Your task to perform on an android device: Install the Twitter app Image 0: 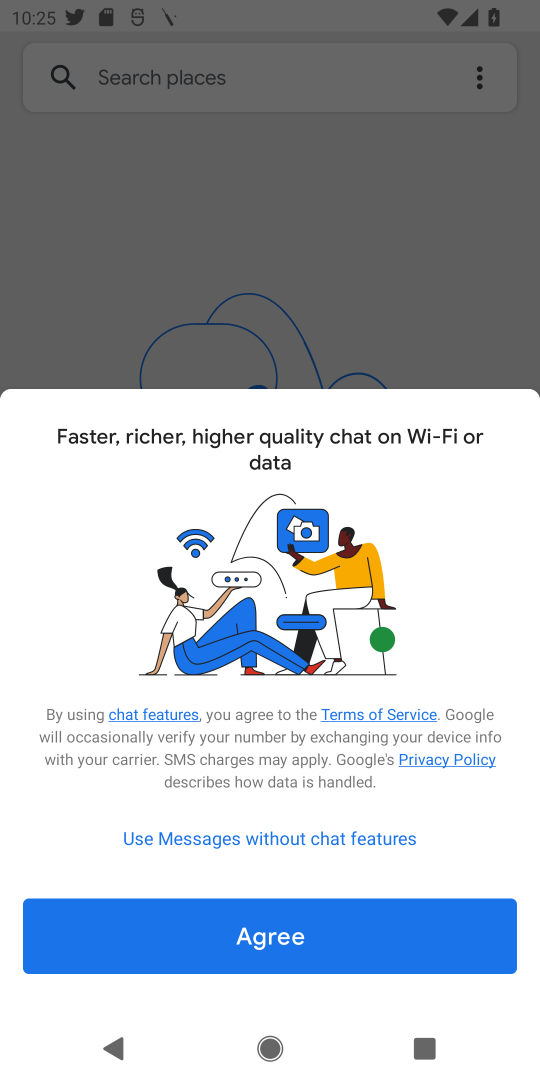
Step 0: press home button
Your task to perform on an android device: Install the Twitter app Image 1: 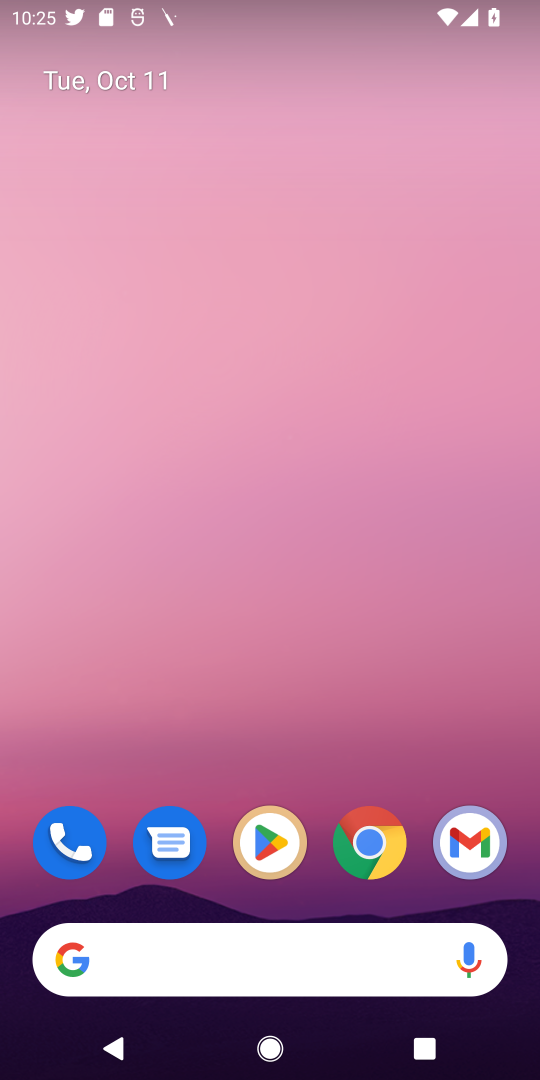
Step 1: drag from (245, 676) to (365, 286)
Your task to perform on an android device: Install the Twitter app Image 2: 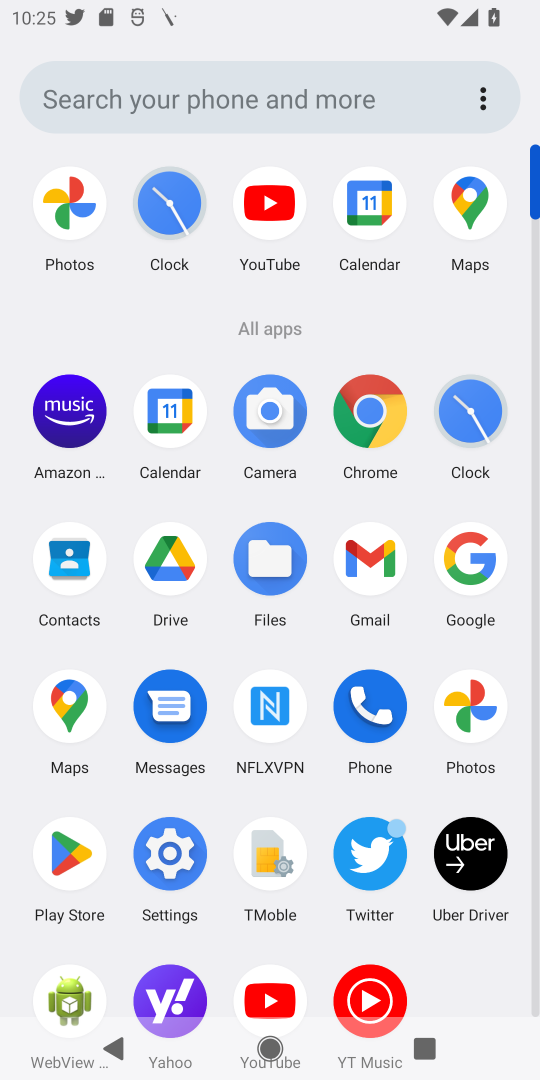
Step 2: click (370, 849)
Your task to perform on an android device: Install the Twitter app Image 3: 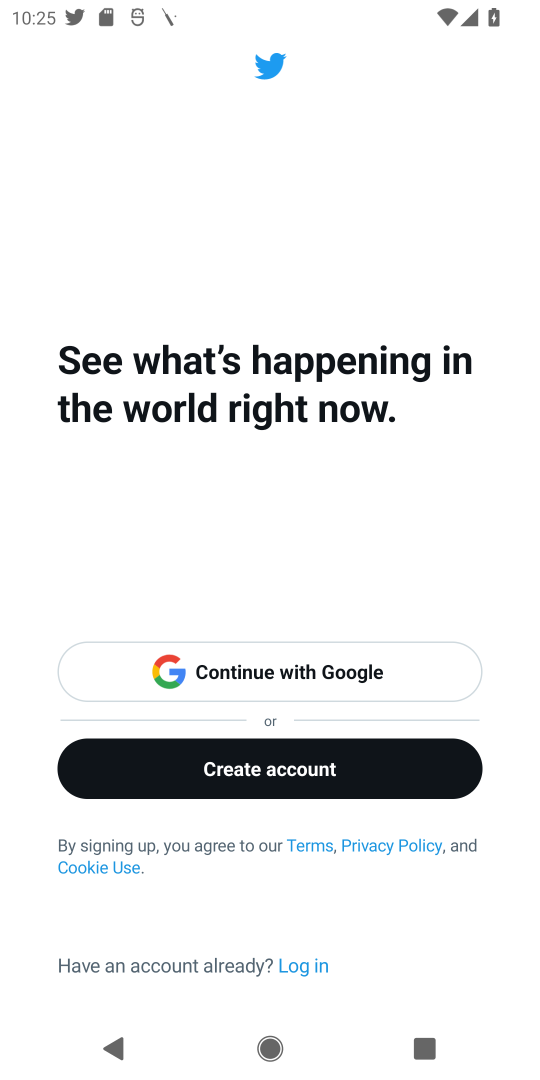
Step 3: click (350, 667)
Your task to perform on an android device: Install the Twitter app Image 4: 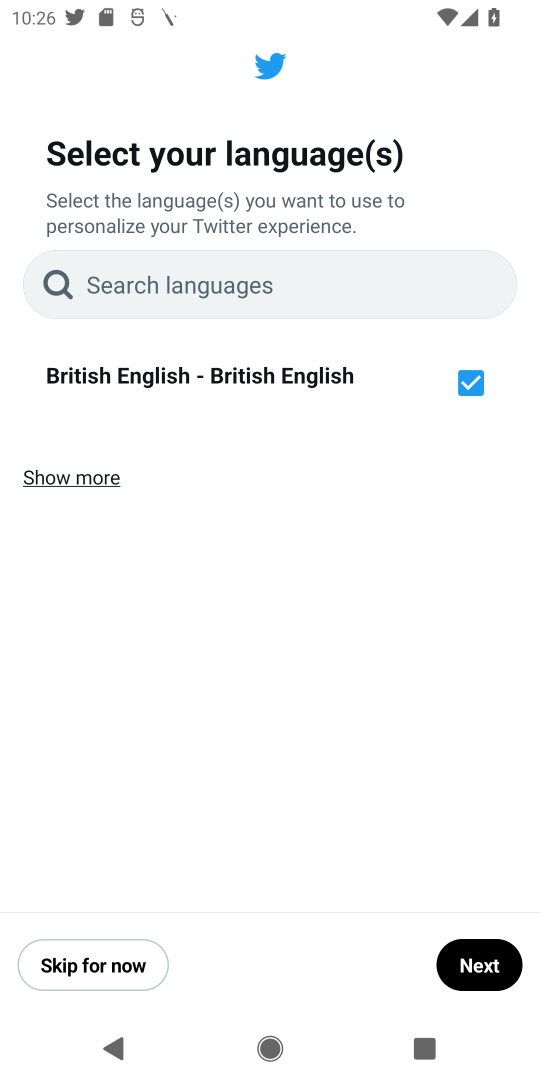
Step 4: drag from (249, 811) to (245, 612)
Your task to perform on an android device: Install the Twitter app Image 5: 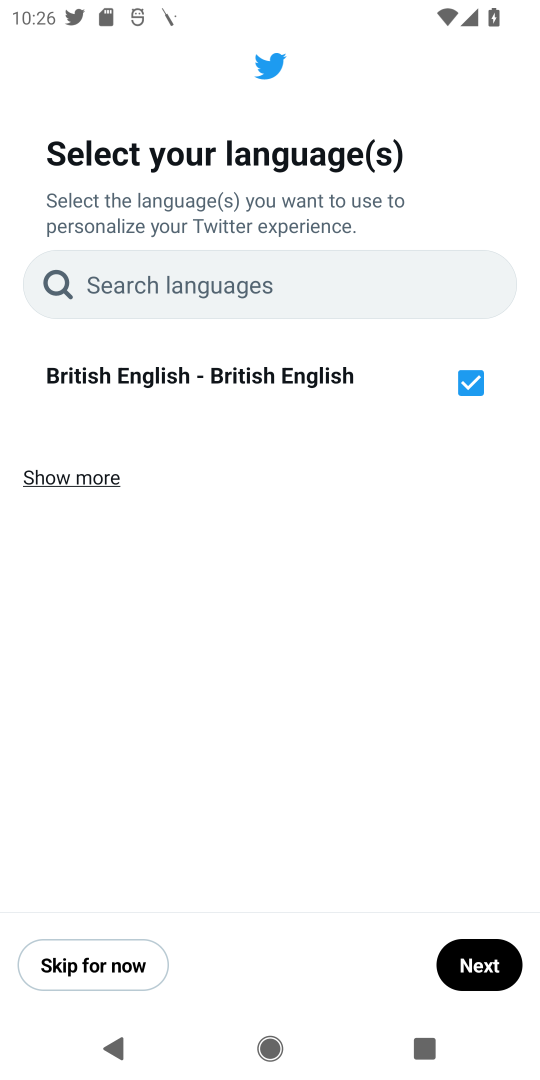
Step 5: click (463, 958)
Your task to perform on an android device: Install the Twitter app Image 6: 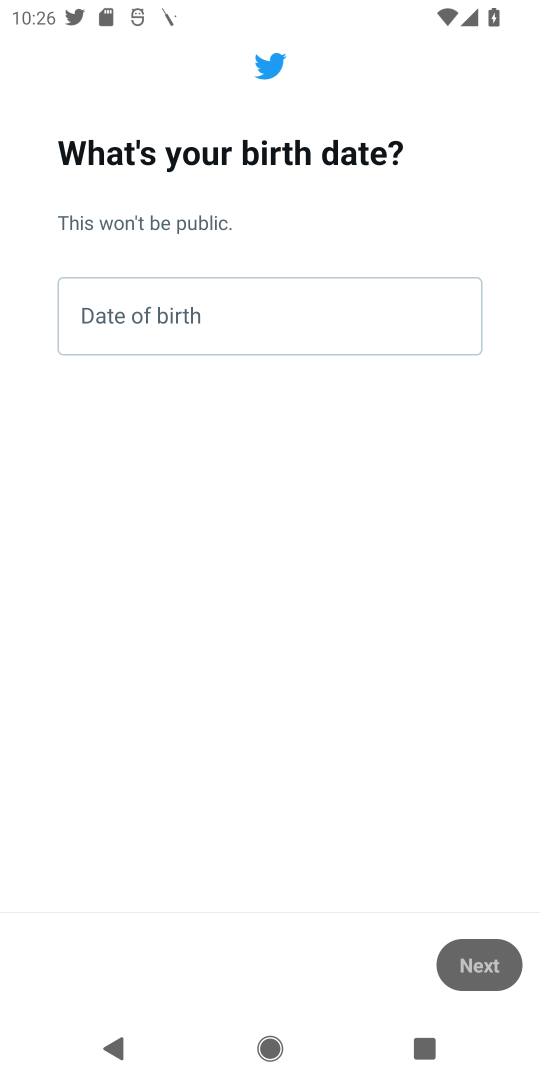
Step 6: click (482, 978)
Your task to perform on an android device: Install the Twitter app Image 7: 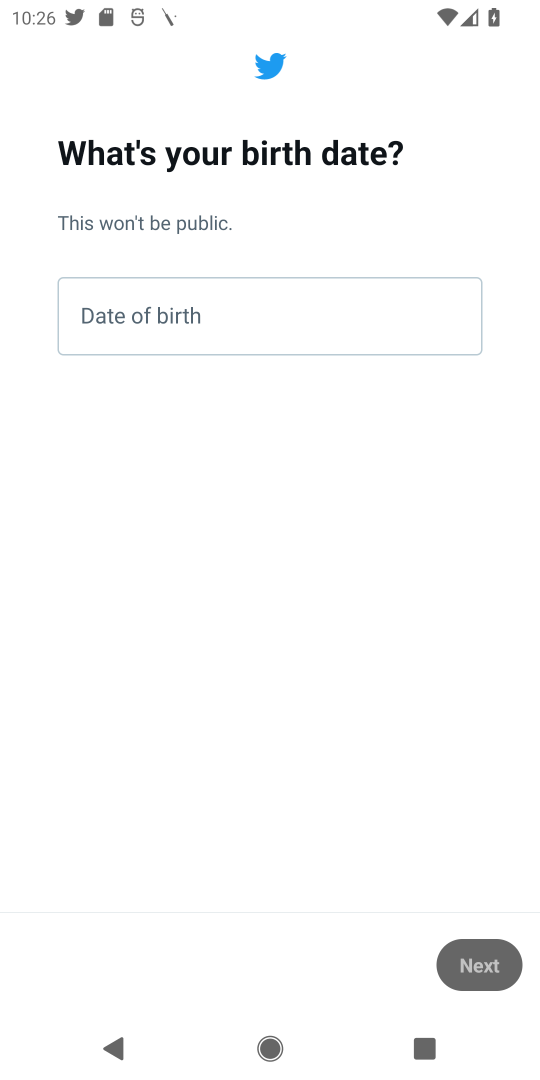
Step 7: press home button
Your task to perform on an android device: Install the Twitter app Image 8: 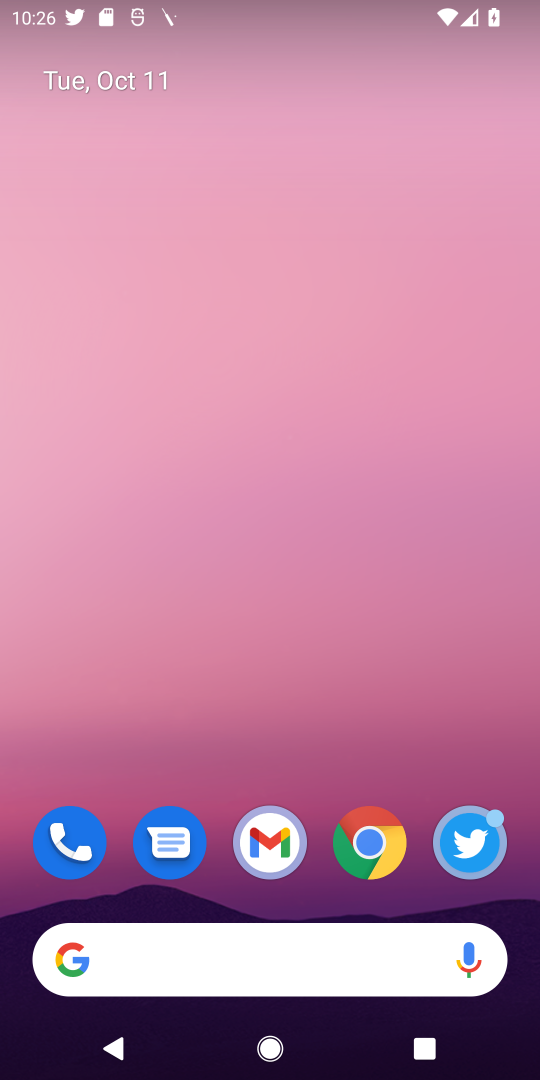
Step 8: drag from (286, 715) to (238, 54)
Your task to perform on an android device: Install the Twitter app Image 9: 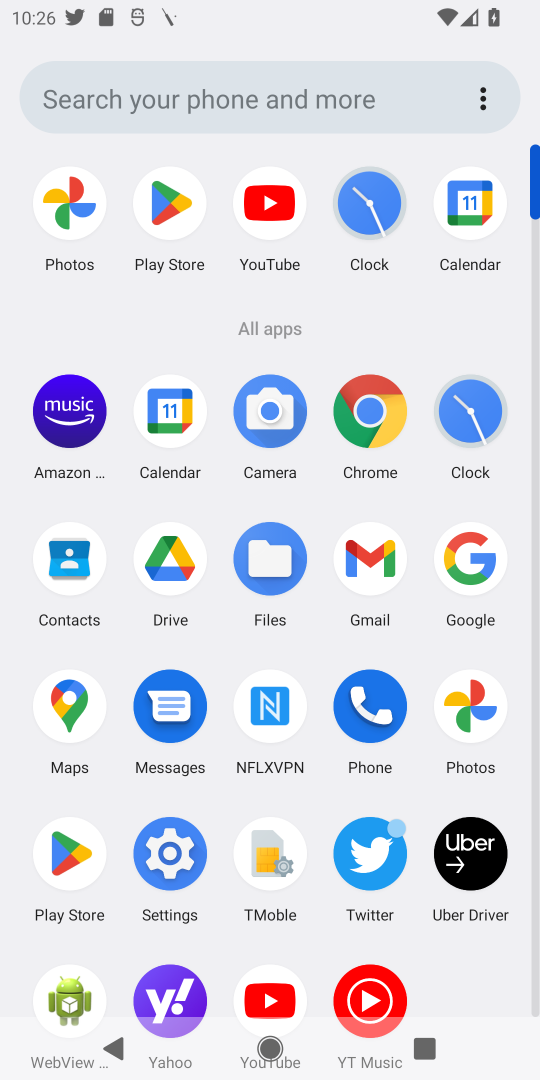
Step 9: click (69, 847)
Your task to perform on an android device: Install the Twitter app Image 10: 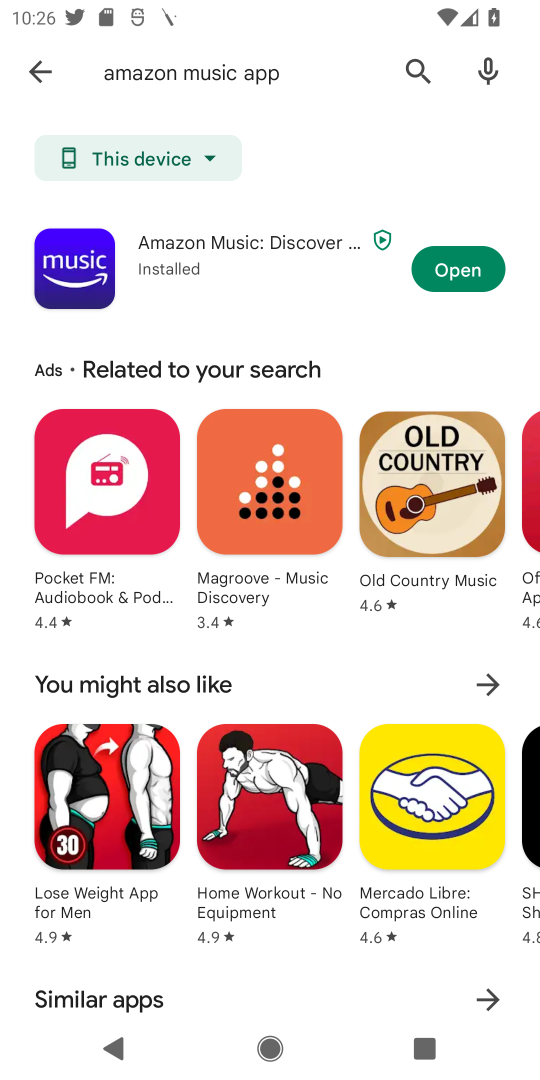
Step 10: click (415, 72)
Your task to perform on an android device: Install the Twitter app Image 11: 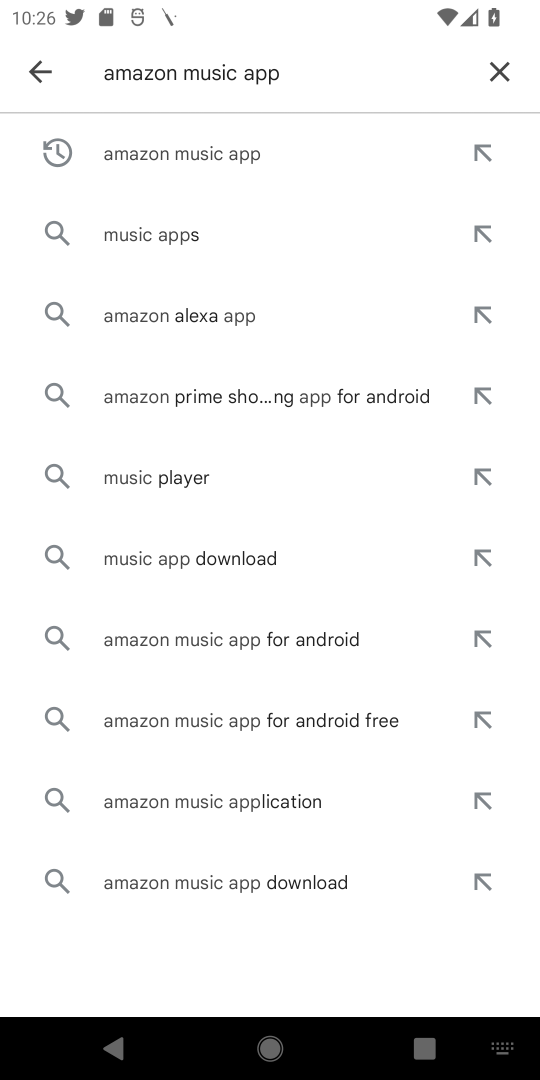
Step 11: click (489, 69)
Your task to perform on an android device: Install the Twitter app Image 12: 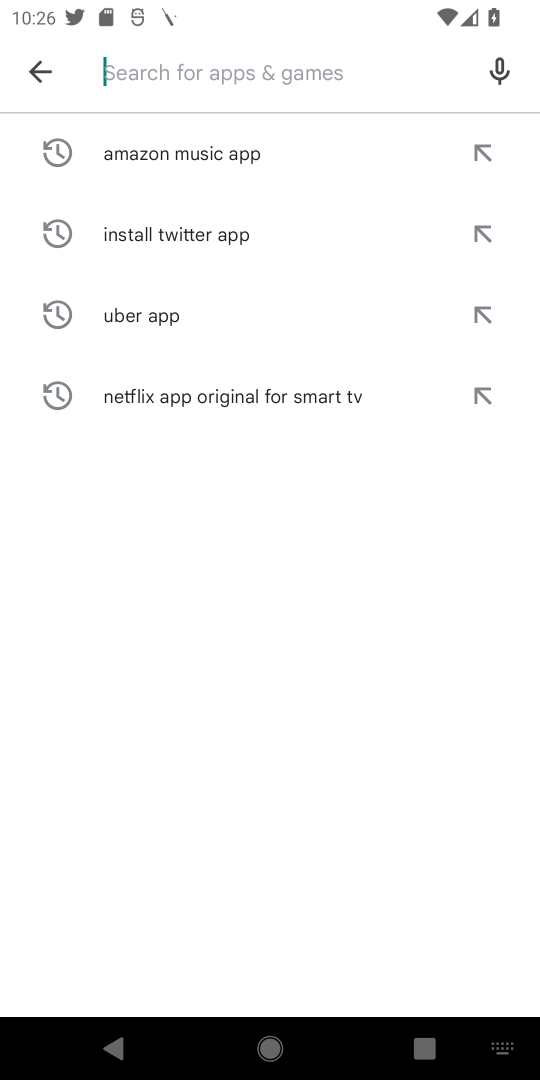
Step 12: click (174, 226)
Your task to perform on an android device: Install the Twitter app Image 13: 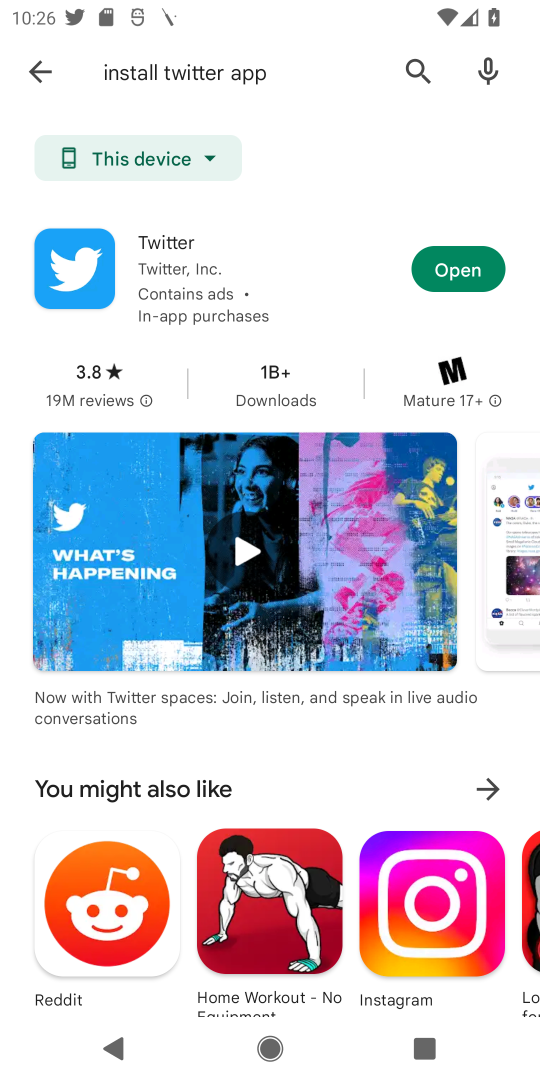
Step 13: click (426, 269)
Your task to perform on an android device: Install the Twitter app Image 14: 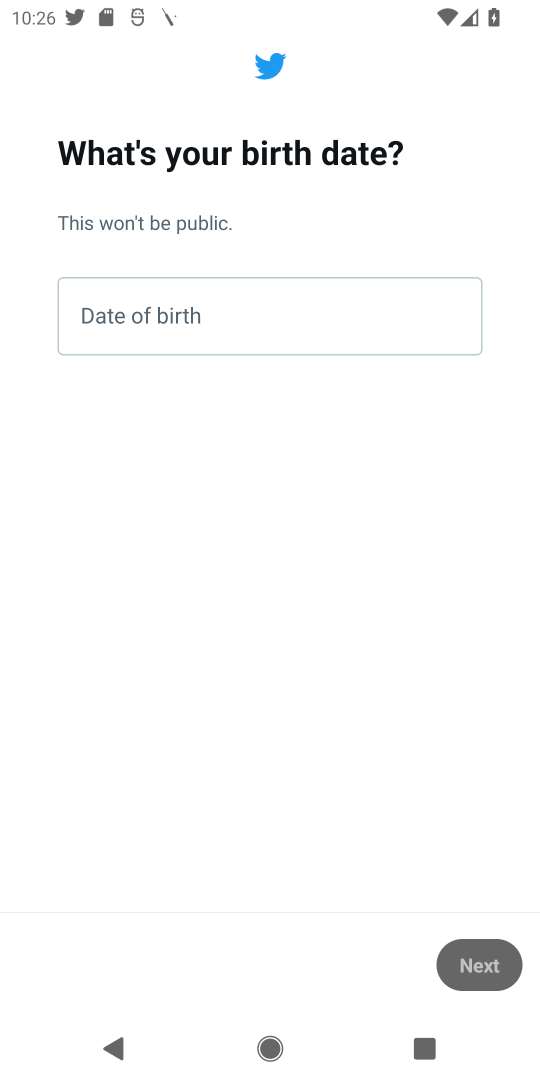
Step 14: task complete